Your task to perform on an android device: allow cookies in the chrome app Image 0: 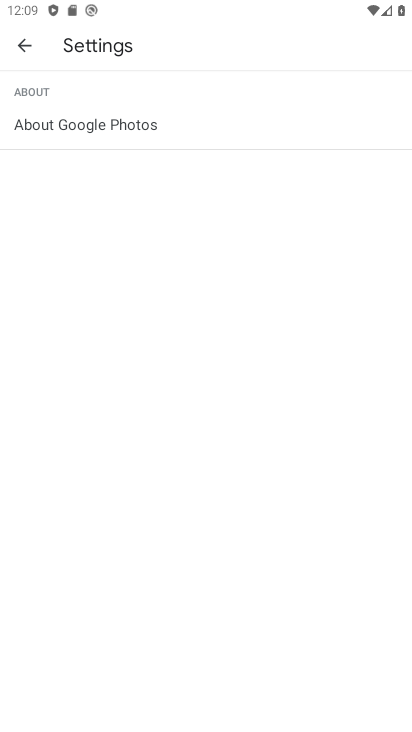
Step 0: press home button
Your task to perform on an android device: allow cookies in the chrome app Image 1: 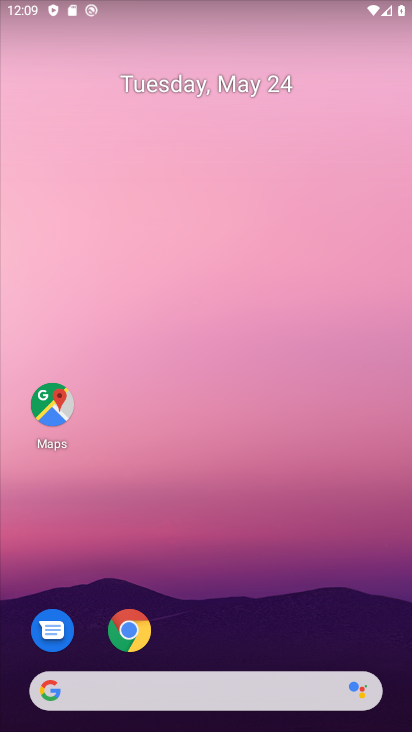
Step 1: click (138, 625)
Your task to perform on an android device: allow cookies in the chrome app Image 2: 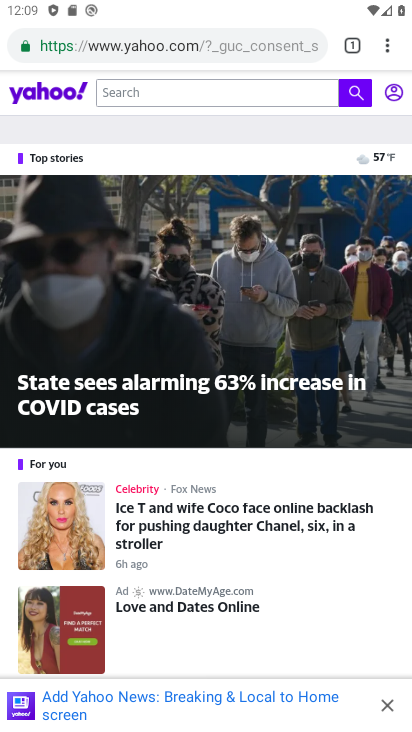
Step 2: click (385, 50)
Your task to perform on an android device: allow cookies in the chrome app Image 3: 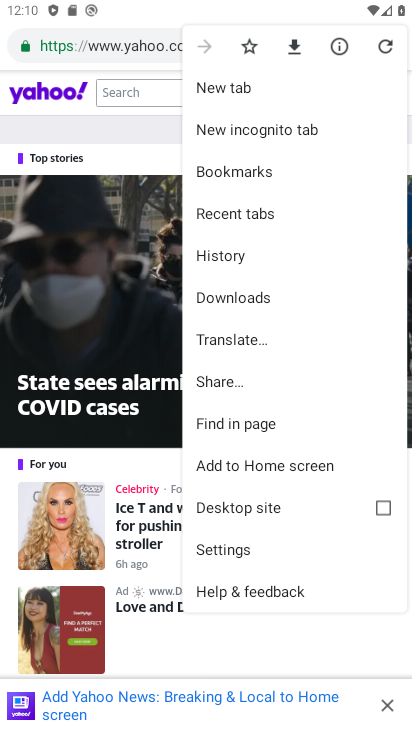
Step 3: click (234, 553)
Your task to perform on an android device: allow cookies in the chrome app Image 4: 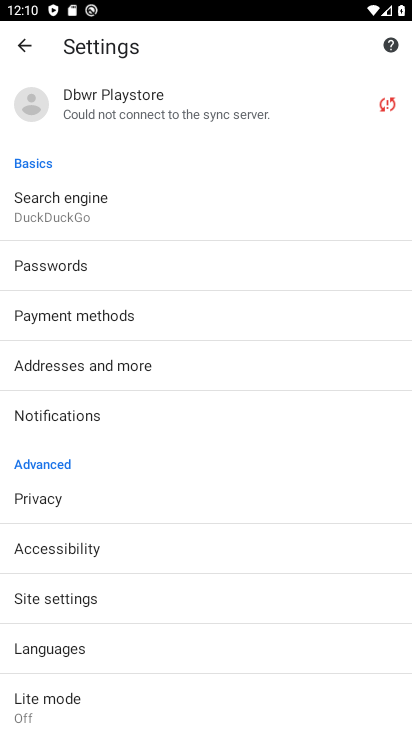
Step 4: click (124, 590)
Your task to perform on an android device: allow cookies in the chrome app Image 5: 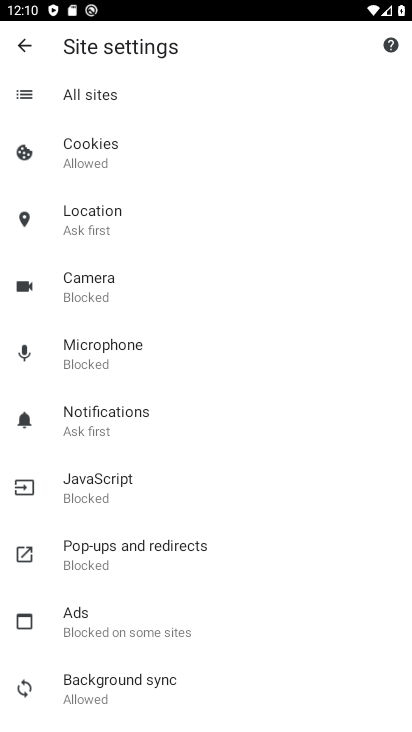
Step 5: click (187, 160)
Your task to perform on an android device: allow cookies in the chrome app Image 6: 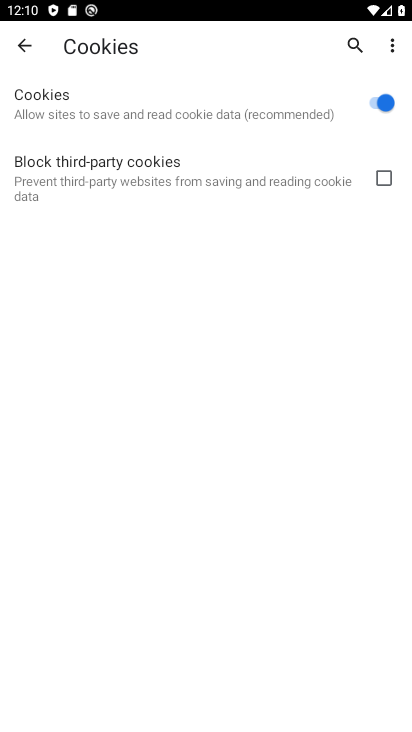
Step 6: task complete